Your task to perform on an android device: toggle notifications settings in the gmail app Image 0: 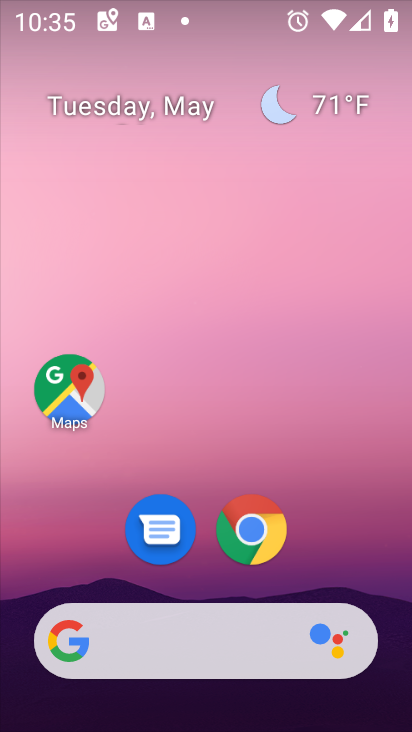
Step 0: drag from (246, 587) to (192, 364)
Your task to perform on an android device: toggle notifications settings in the gmail app Image 1: 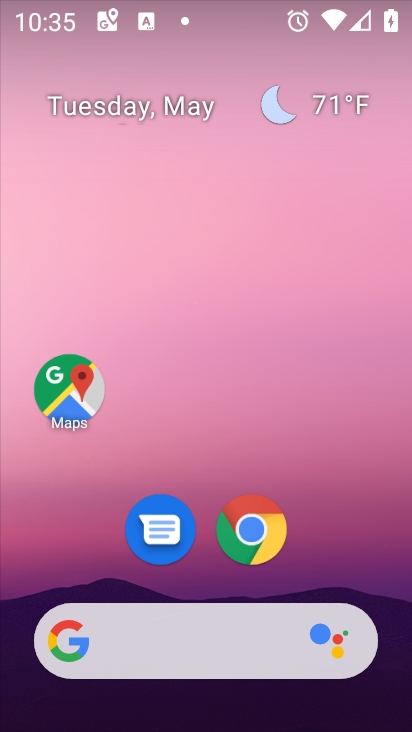
Step 1: drag from (260, 623) to (232, 158)
Your task to perform on an android device: toggle notifications settings in the gmail app Image 2: 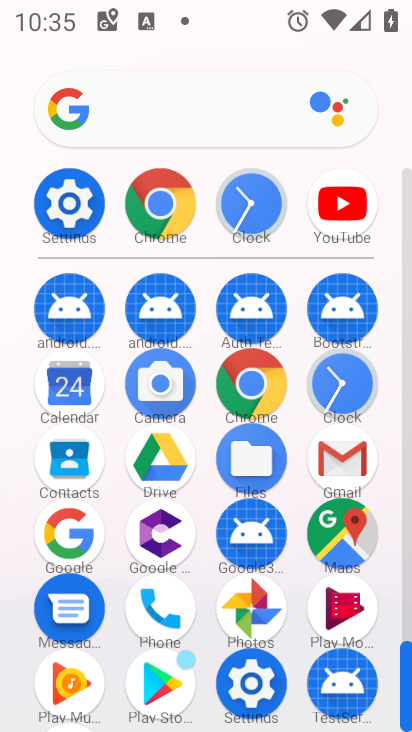
Step 2: click (346, 469)
Your task to perform on an android device: toggle notifications settings in the gmail app Image 3: 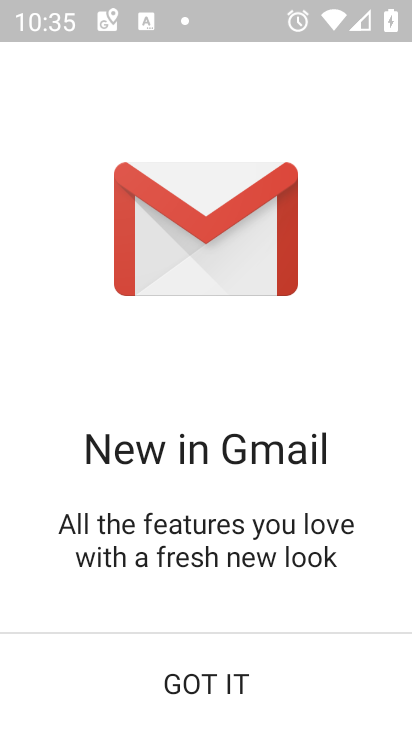
Step 3: click (225, 675)
Your task to perform on an android device: toggle notifications settings in the gmail app Image 4: 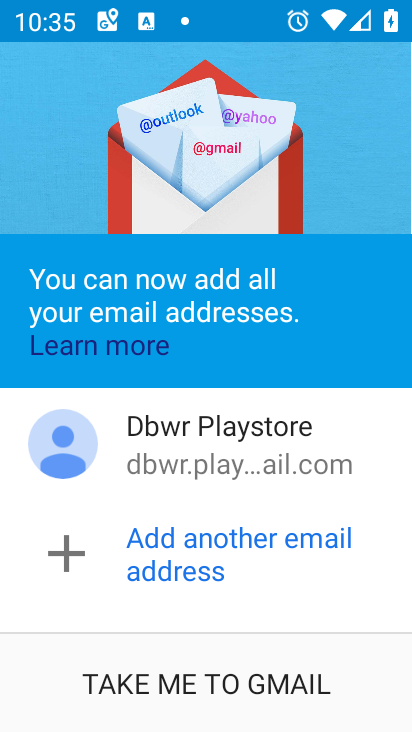
Step 4: click (241, 692)
Your task to perform on an android device: toggle notifications settings in the gmail app Image 5: 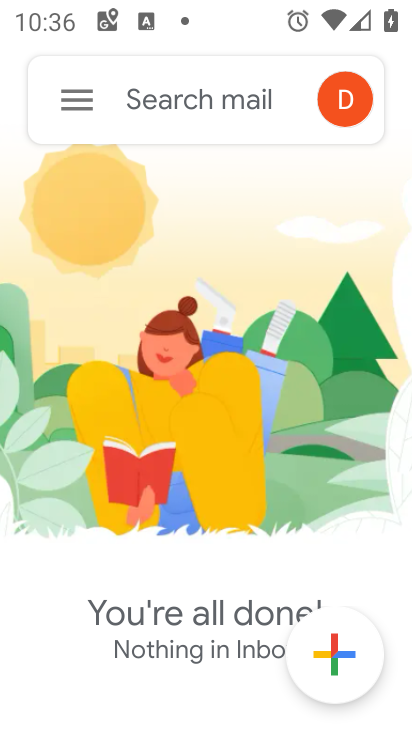
Step 5: click (79, 106)
Your task to perform on an android device: toggle notifications settings in the gmail app Image 6: 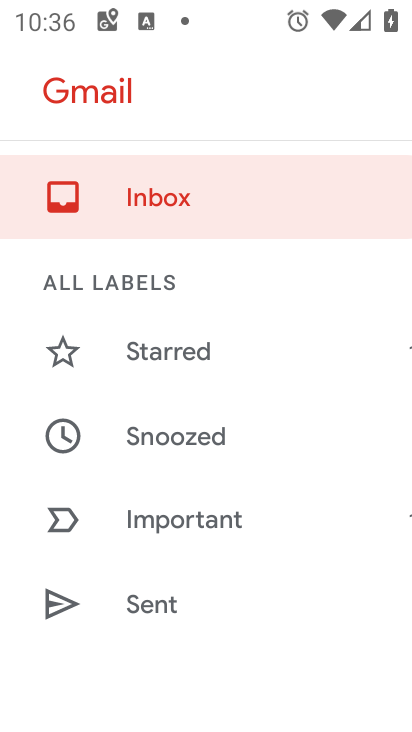
Step 6: drag from (116, 406) to (129, 298)
Your task to perform on an android device: toggle notifications settings in the gmail app Image 7: 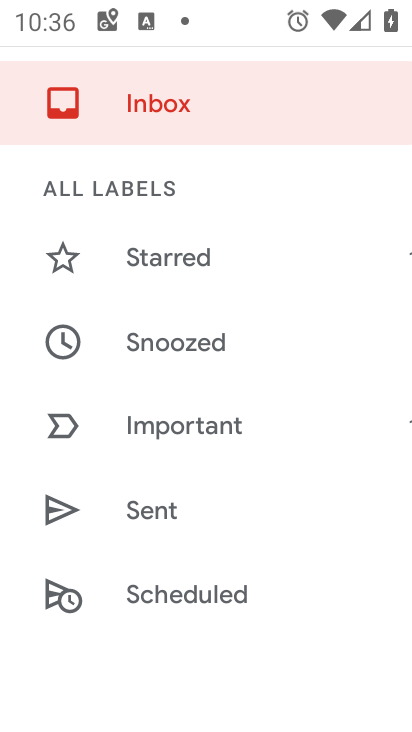
Step 7: drag from (127, 547) to (150, 368)
Your task to perform on an android device: toggle notifications settings in the gmail app Image 8: 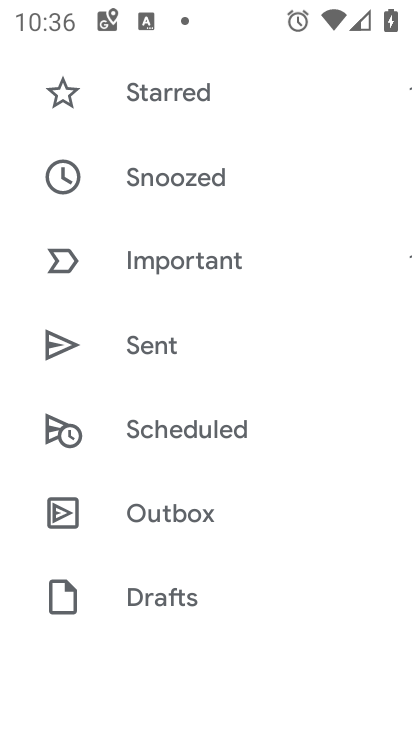
Step 8: drag from (159, 540) to (165, 418)
Your task to perform on an android device: toggle notifications settings in the gmail app Image 9: 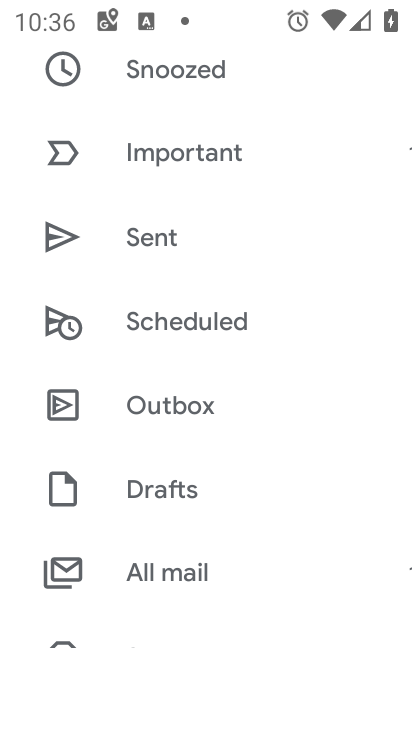
Step 9: drag from (181, 528) to (186, 323)
Your task to perform on an android device: toggle notifications settings in the gmail app Image 10: 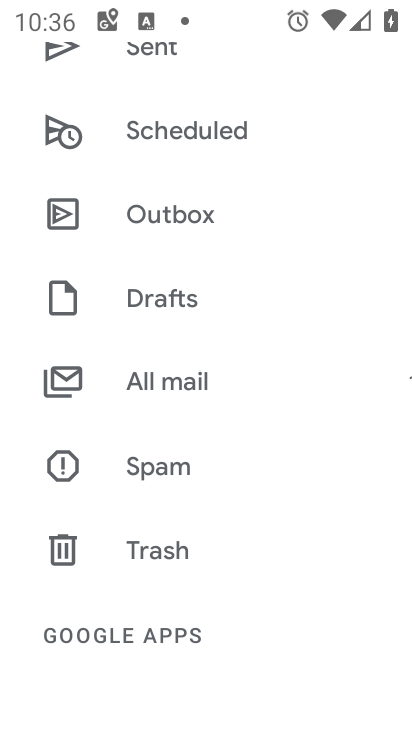
Step 10: drag from (174, 550) to (201, 238)
Your task to perform on an android device: toggle notifications settings in the gmail app Image 11: 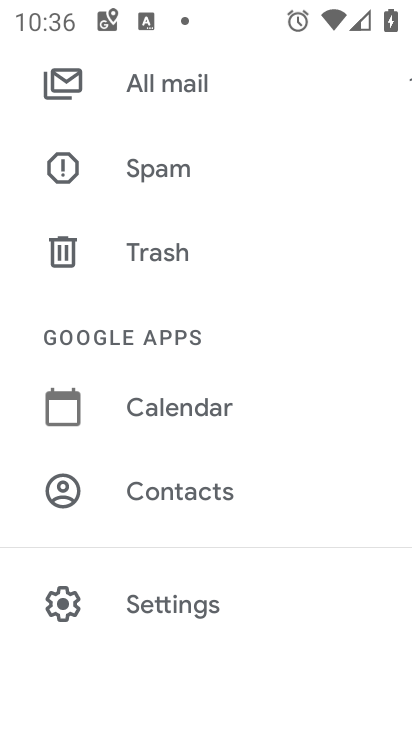
Step 11: drag from (191, 443) to (194, 329)
Your task to perform on an android device: toggle notifications settings in the gmail app Image 12: 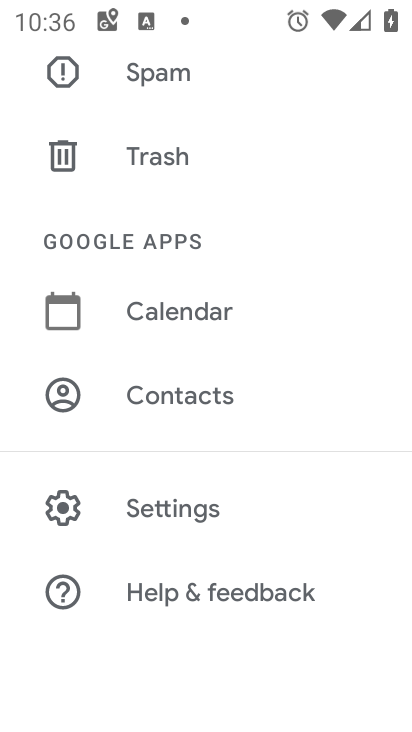
Step 12: click (160, 516)
Your task to perform on an android device: toggle notifications settings in the gmail app Image 13: 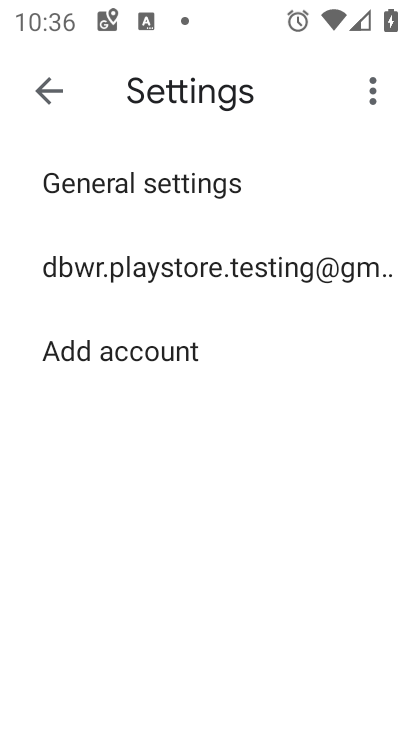
Step 13: click (180, 184)
Your task to perform on an android device: toggle notifications settings in the gmail app Image 14: 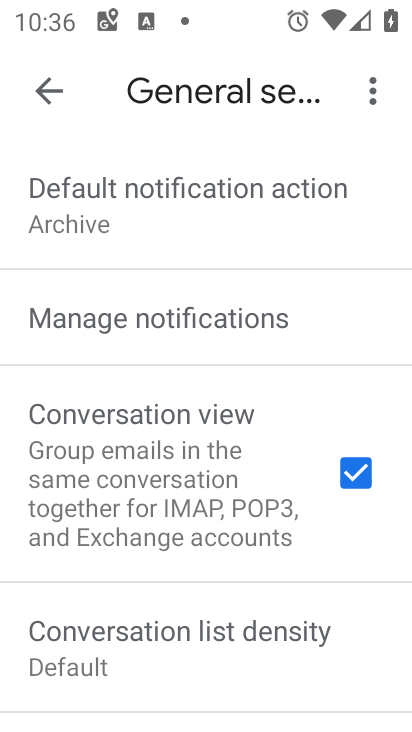
Step 14: click (196, 302)
Your task to perform on an android device: toggle notifications settings in the gmail app Image 15: 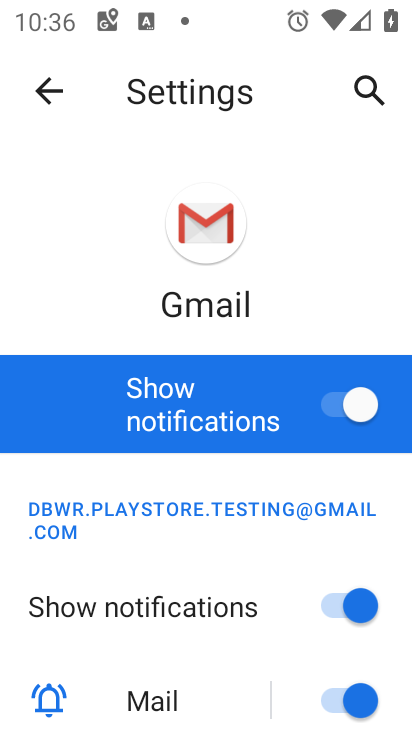
Step 15: click (339, 418)
Your task to perform on an android device: toggle notifications settings in the gmail app Image 16: 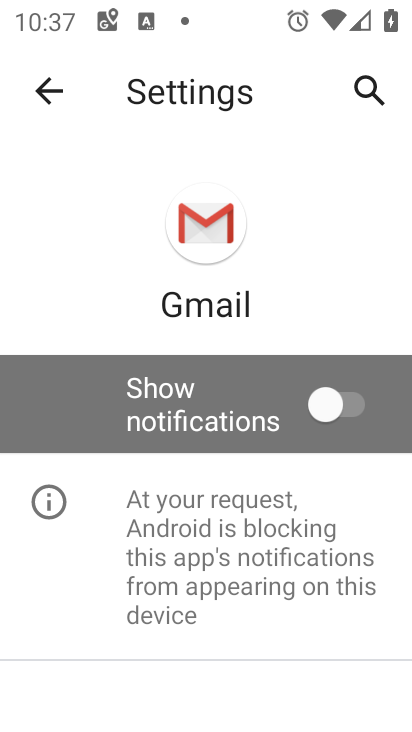
Step 16: task complete